Your task to perform on an android device: Go to internet settings Image 0: 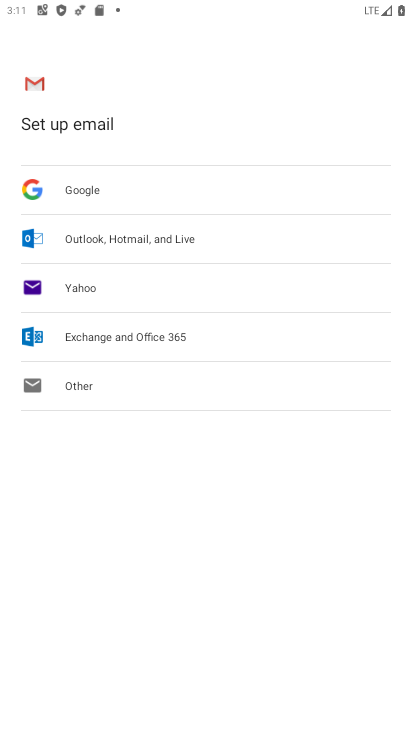
Step 0: press back button
Your task to perform on an android device: Go to internet settings Image 1: 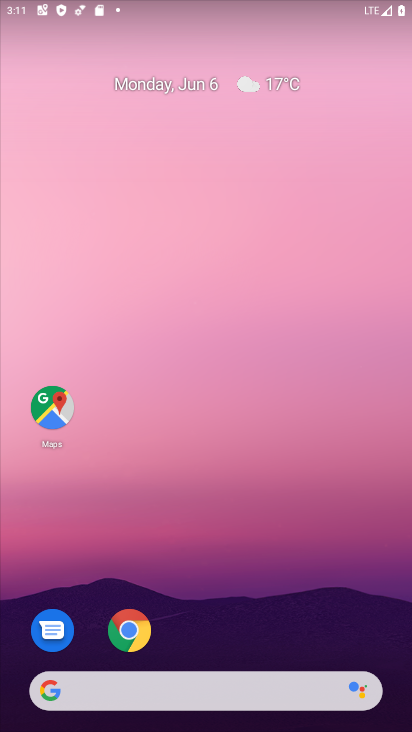
Step 1: drag from (223, 633) to (264, 42)
Your task to perform on an android device: Go to internet settings Image 2: 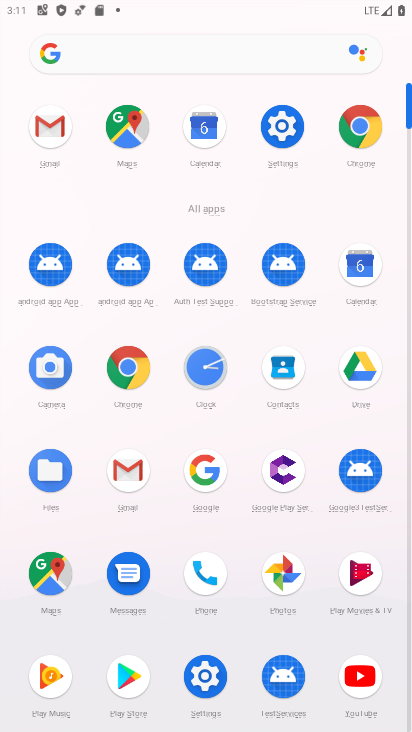
Step 2: click (277, 123)
Your task to perform on an android device: Go to internet settings Image 3: 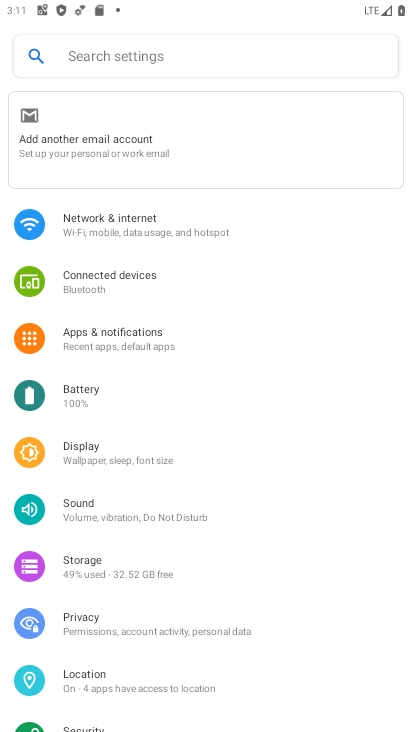
Step 3: click (89, 220)
Your task to perform on an android device: Go to internet settings Image 4: 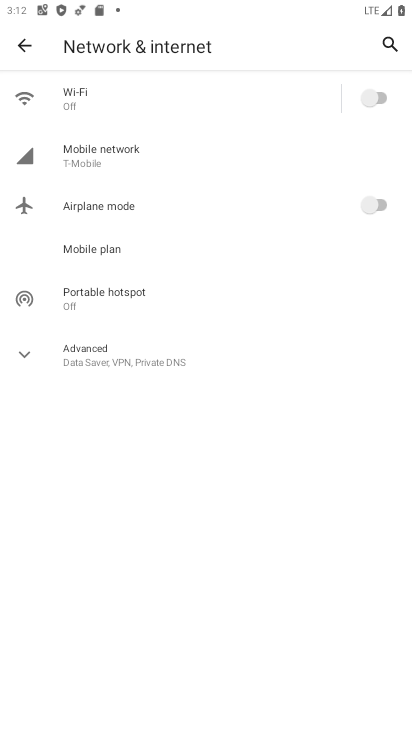
Step 4: task complete